Your task to perform on an android device: Open settings Image 0: 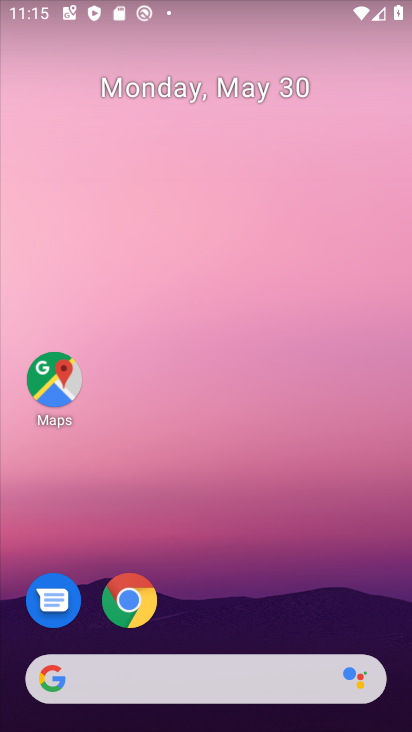
Step 0: drag from (209, 716) to (245, 44)
Your task to perform on an android device: Open settings Image 1: 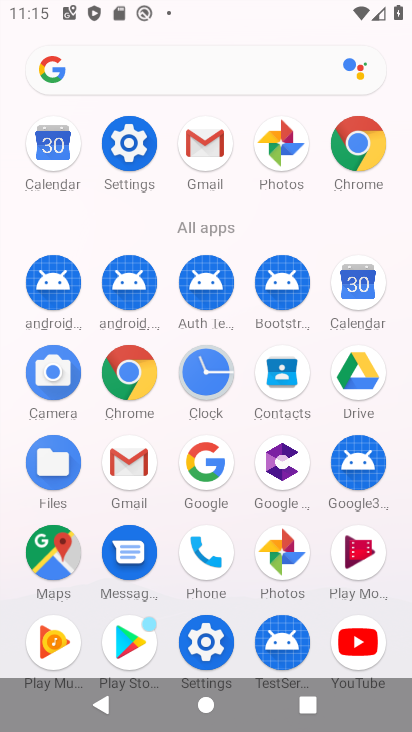
Step 1: click (117, 141)
Your task to perform on an android device: Open settings Image 2: 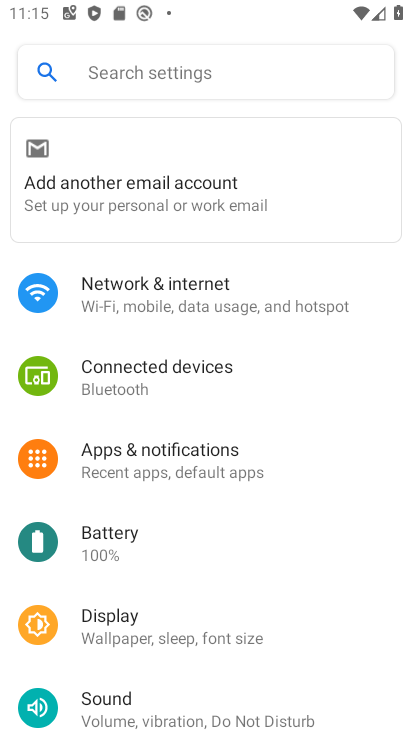
Step 2: task complete